Your task to perform on an android device: check android version Image 0: 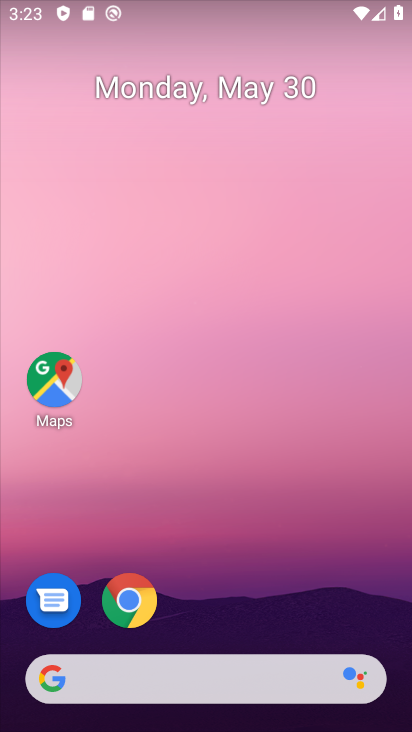
Step 0: drag from (260, 623) to (9, 49)
Your task to perform on an android device: check android version Image 1: 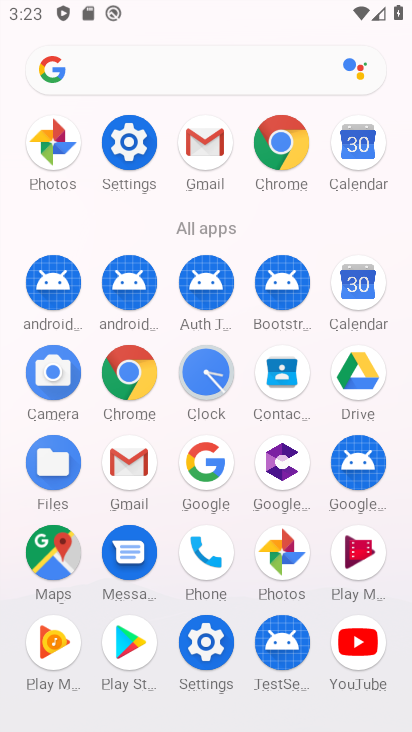
Step 1: click (115, 159)
Your task to perform on an android device: check android version Image 2: 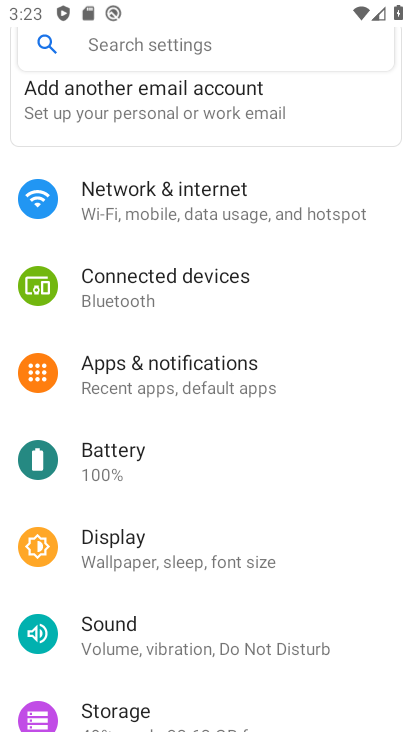
Step 2: drag from (172, 685) to (80, 160)
Your task to perform on an android device: check android version Image 3: 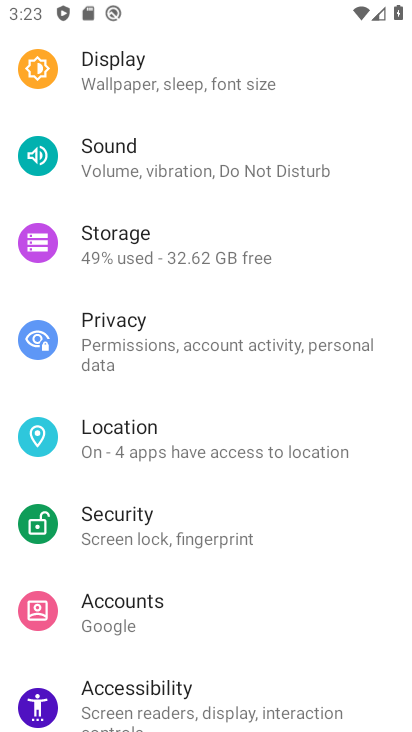
Step 3: drag from (223, 647) to (124, 135)
Your task to perform on an android device: check android version Image 4: 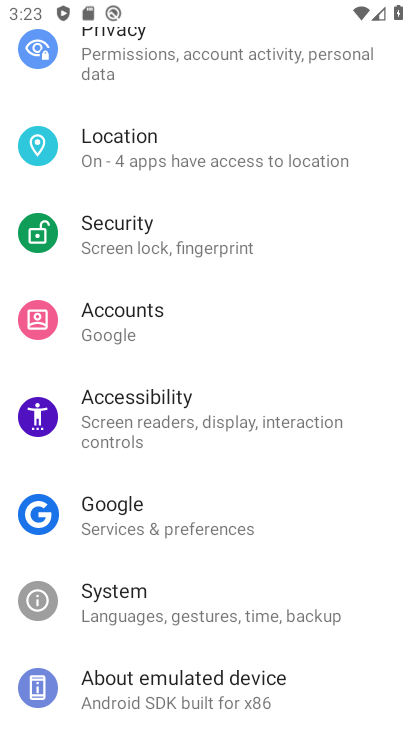
Step 4: click (206, 681)
Your task to perform on an android device: check android version Image 5: 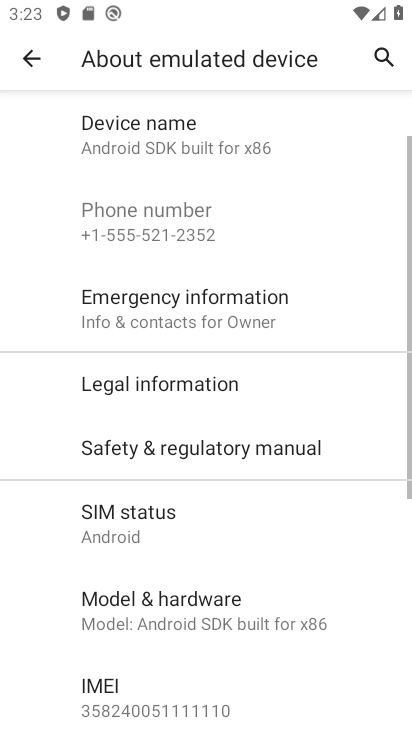
Step 5: drag from (158, 627) to (132, 286)
Your task to perform on an android device: check android version Image 6: 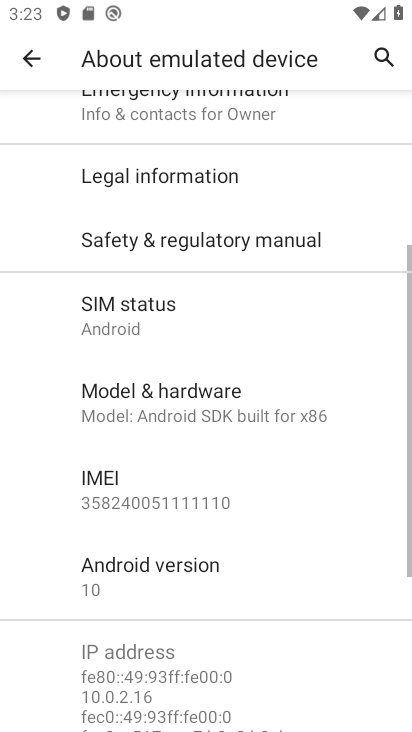
Step 6: click (177, 571)
Your task to perform on an android device: check android version Image 7: 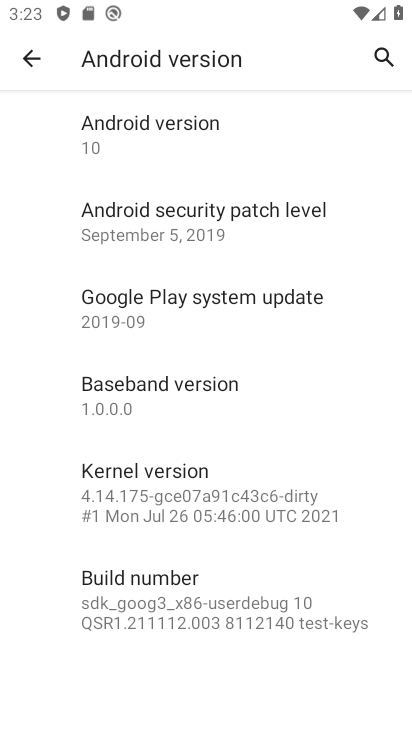
Step 7: task complete